Your task to perform on an android device: What is the news today? Image 0: 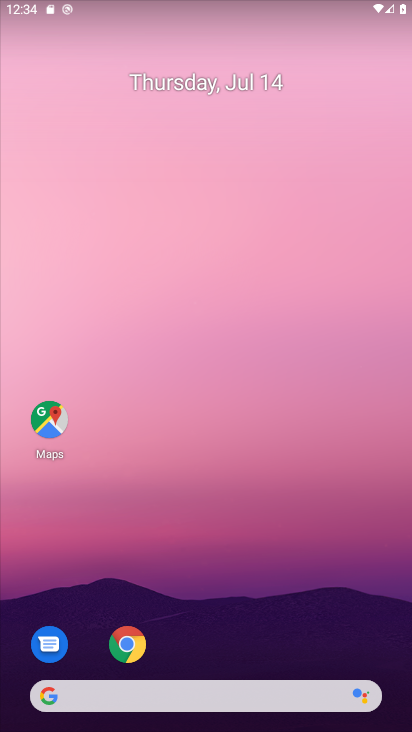
Step 0: click (272, 697)
Your task to perform on an android device: What is the news today? Image 1: 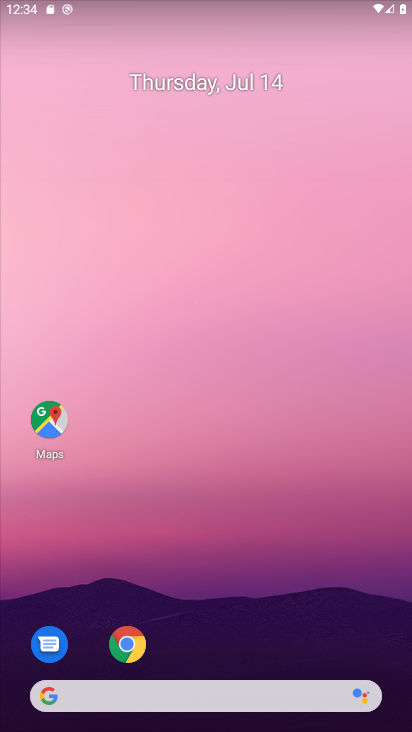
Step 1: click (272, 697)
Your task to perform on an android device: What is the news today? Image 2: 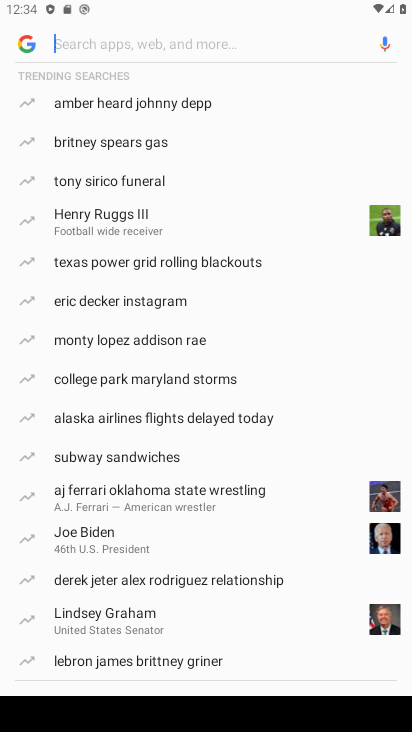
Step 2: type "What is the news today?"
Your task to perform on an android device: What is the news today? Image 3: 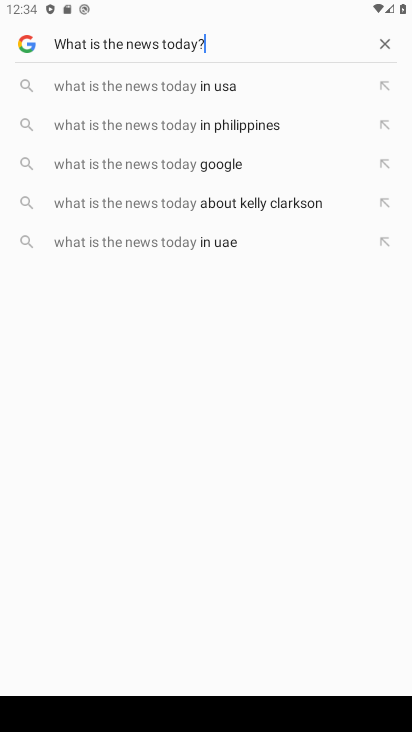
Step 3: press enter
Your task to perform on an android device: What is the news today? Image 4: 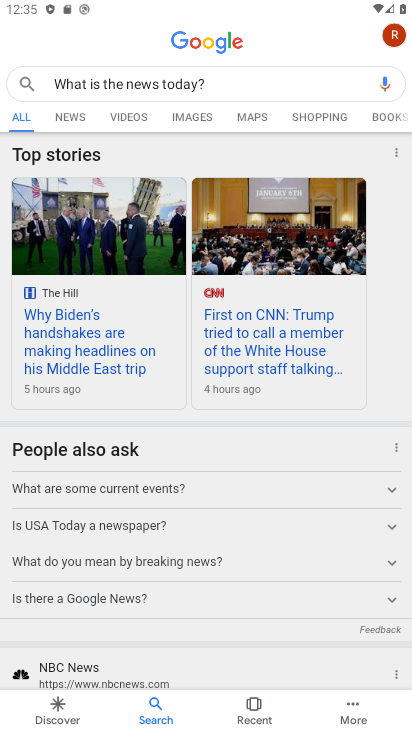
Step 4: task complete